Your task to perform on an android device: change the clock display to analog Image 0: 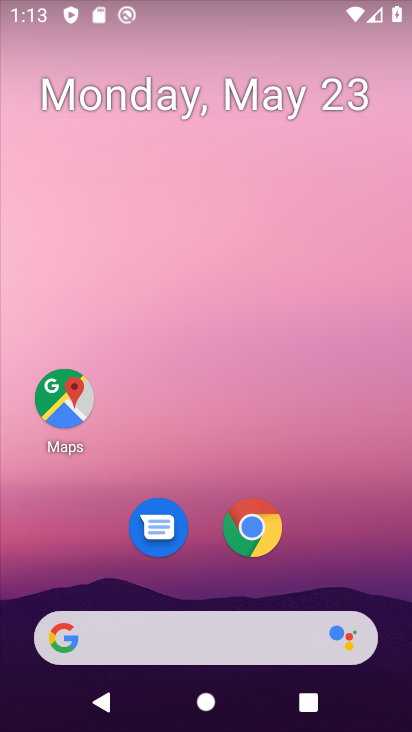
Step 0: click (224, 94)
Your task to perform on an android device: change the clock display to analog Image 1: 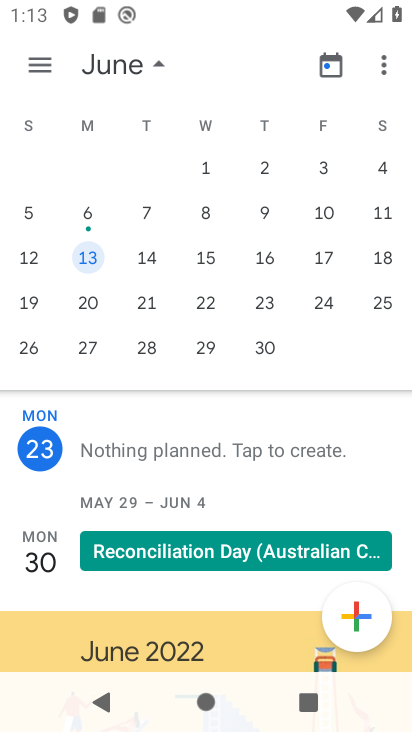
Step 1: drag from (187, 561) to (187, 205)
Your task to perform on an android device: change the clock display to analog Image 2: 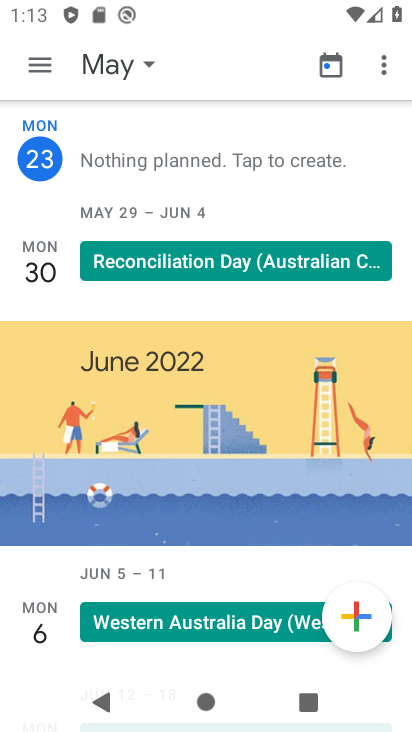
Step 2: press back button
Your task to perform on an android device: change the clock display to analog Image 3: 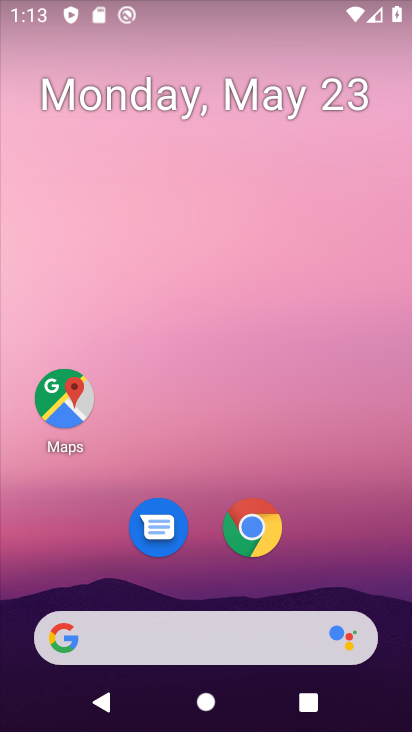
Step 3: drag from (240, 540) to (274, 104)
Your task to perform on an android device: change the clock display to analog Image 4: 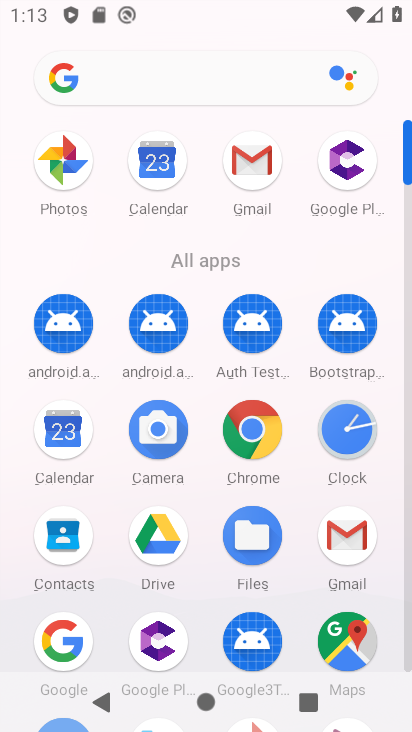
Step 4: click (345, 428)
Your task to perform on an android device: change the clock display to analog Image 5: 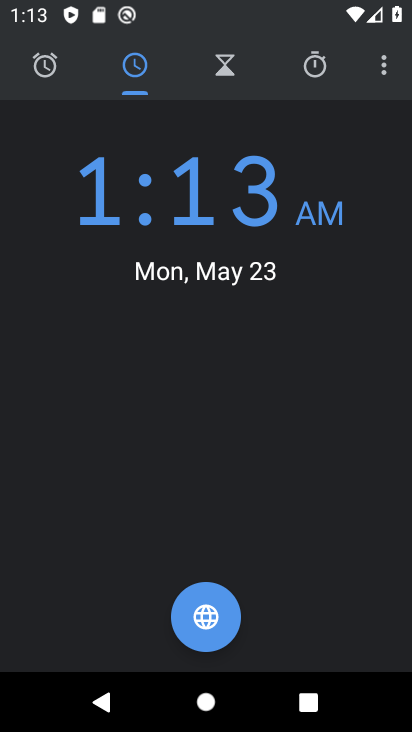
Step 5: click (383, 68)
Your task to perform on an android device: change the clock display to analog Image 6: 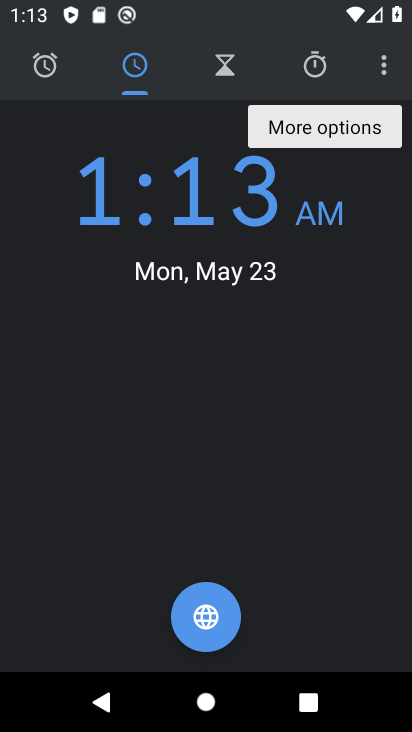
Step 6: click (384, 63)
Your task to perform on an android device: change the clock display to analog Image 7: 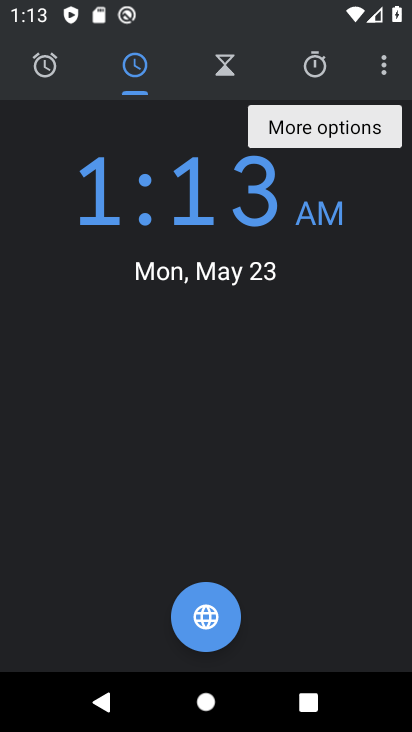
Step 7: click (384, 62)
Your task to perform on an android device: change the clock display to analog Image 8: 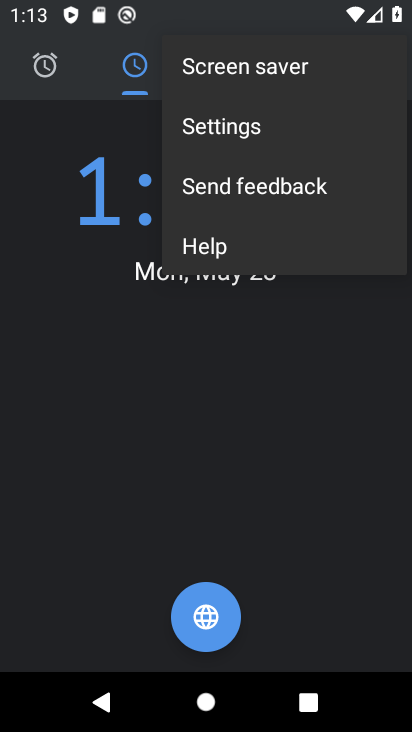
Step 8: click (228, 127)
Your task to perform on an android device: change the clock display to analog Image 9: 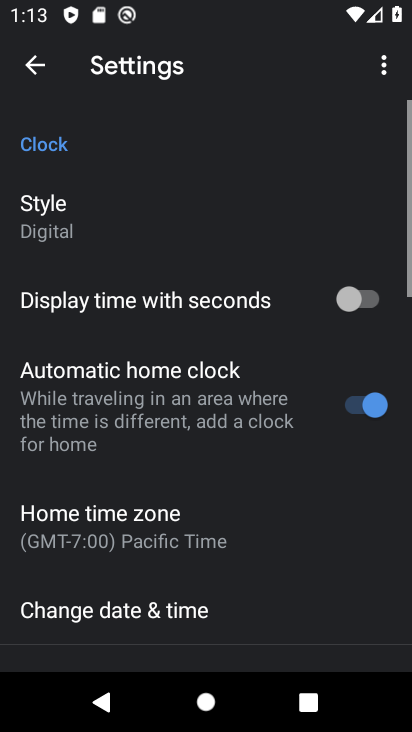
Step 9: click (91, 218)
Your task to perform on an android device: change the clock display to analog Image 10: 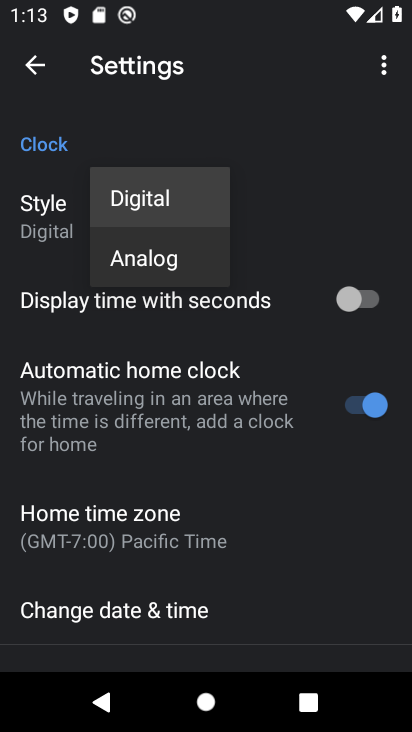
Step 10: click (161, 260)
Your task to perform on an android device: change the clock display to analog Image 11: 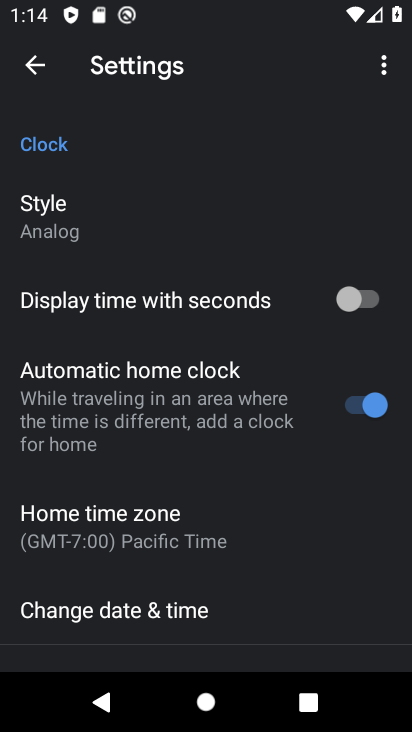
Step 11: task complete